Your task to perform on an android device: Open sound settings Image 0: 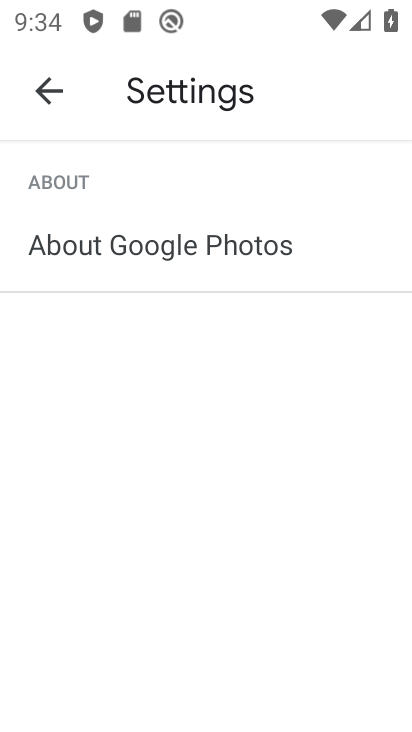
Step 0: press home button
Your task to perform on an android device: Open sound settings Image 1: 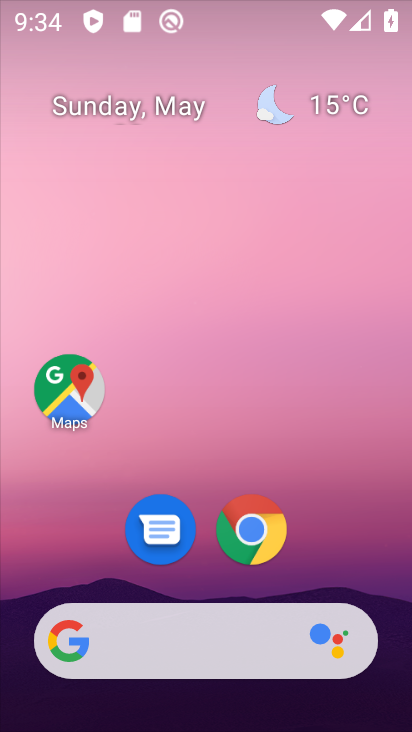
Step 1: drag from (242, 653) to (278, 148)
Your task to perform on an android device: Open sound settings Image 2: 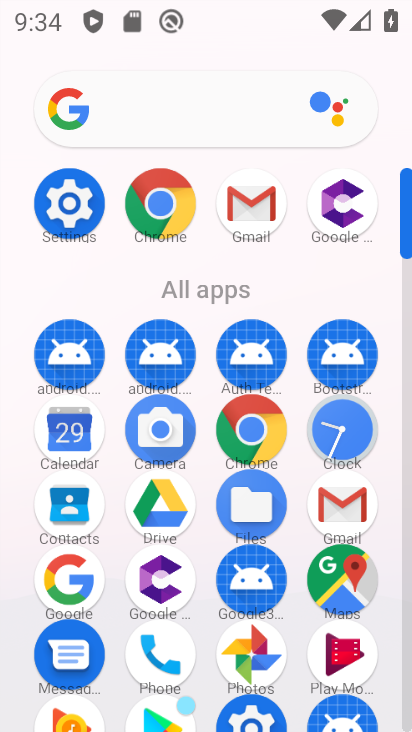
Step 2: click (72, 195)
Your task to perform on an android device: Open sound settings Image 3: 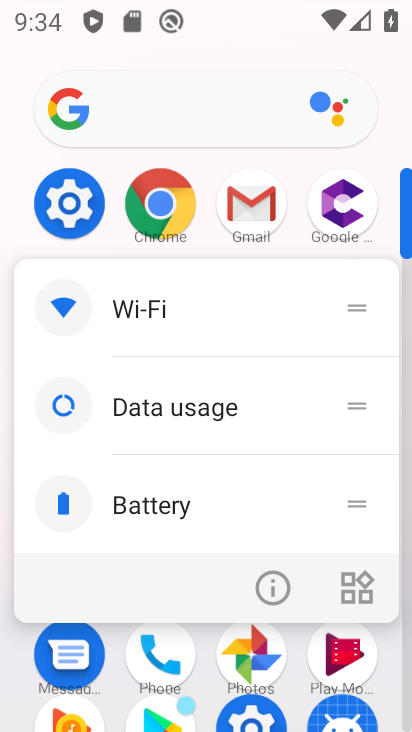
Step 3: click (67, 191)
Your task to perform on an android device: Open sound settings Image 4: 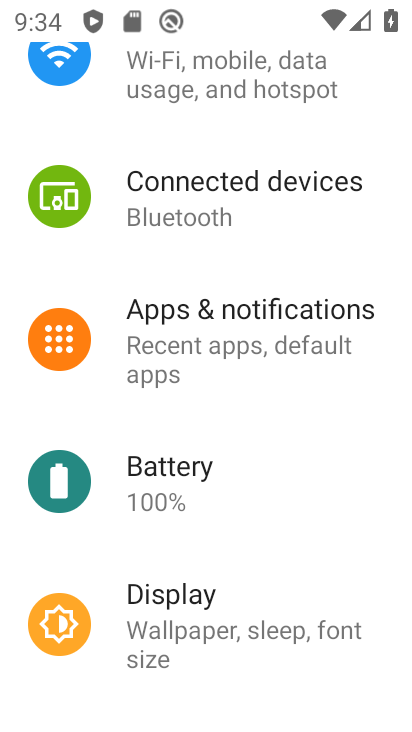
Step 4: drag from (256, 142) to (332, 85)
Your task to perform on an android device: Open sound settings Image 5: 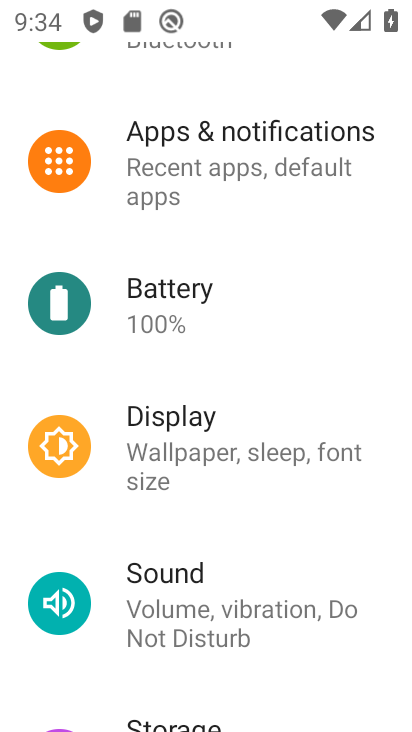
Step 5: click (262, 615)
Your task to perform on an android device: Open sound settings Image 6: 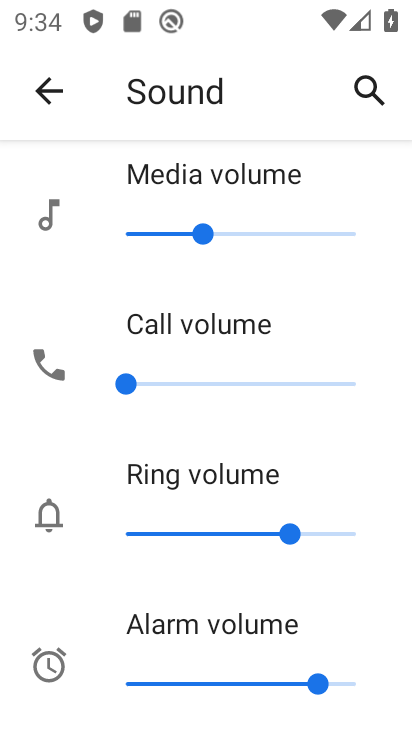
Step 6: task complete